Your task to perform on an android device: Open calendar and show me the first week of next month Image 0: 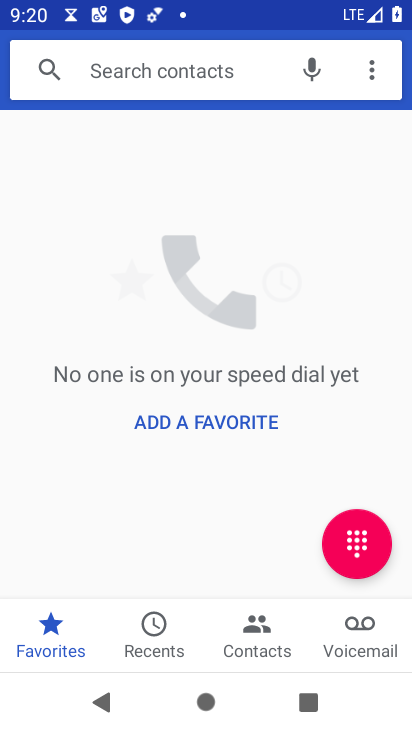
Step 0: press home button
Your task to perform on an android device: Open calendar and show me the first week of next month Image 1: 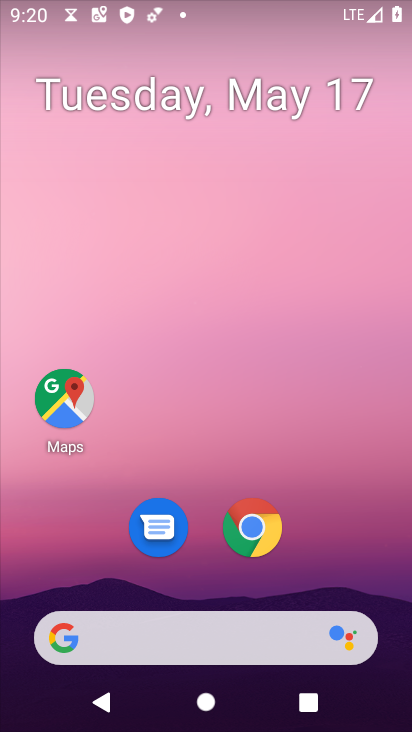
Step 1: drag from (205, 492) to (308, 90)
Your task to perform on an android device: Open calendar and show me the first week of next month Image 2: 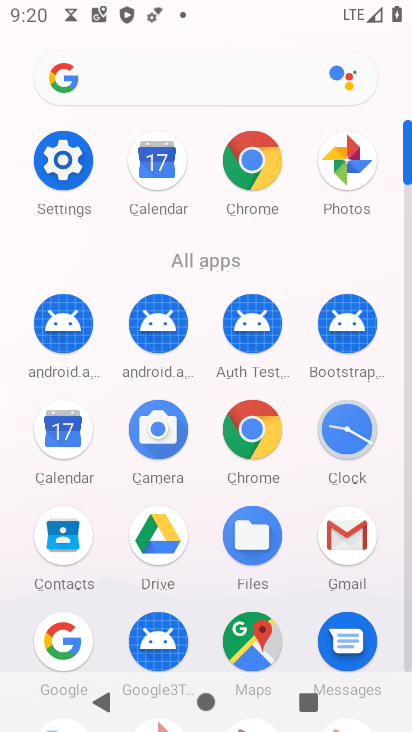
Step 2: click (163, 172)
Your task to perform on an android device: Open calendar and show me the first week of next month Image 3: 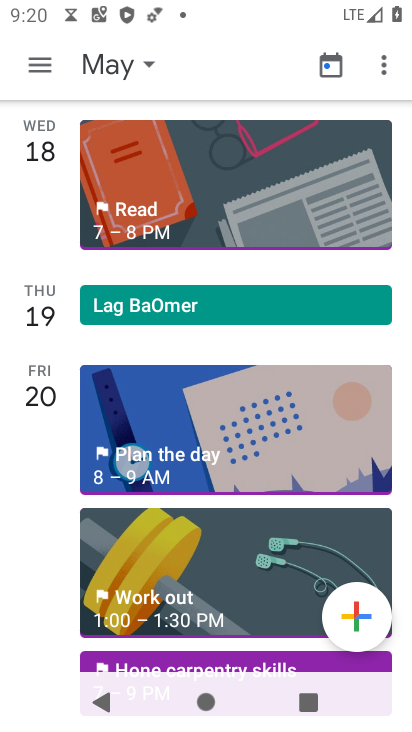
Step 3: click (106, 71)
Your task to perform on an android device: Open calendar and show me the first week of next month Image 4: 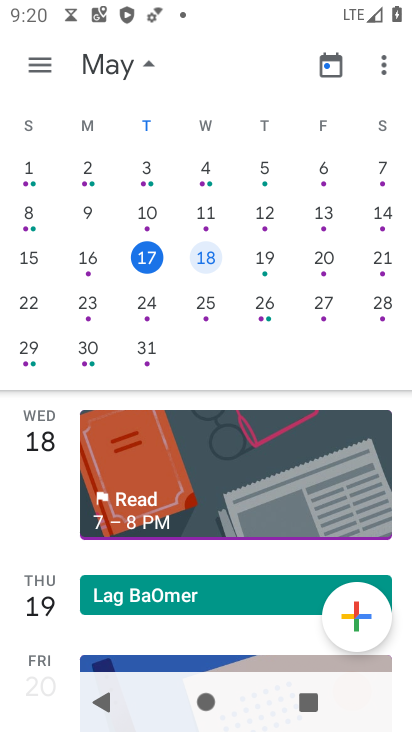
Step 4: drag from (372, 218) to (2, 347)
Your task to perform on an android device: Open calendar and show me the first week of next month Image 5: 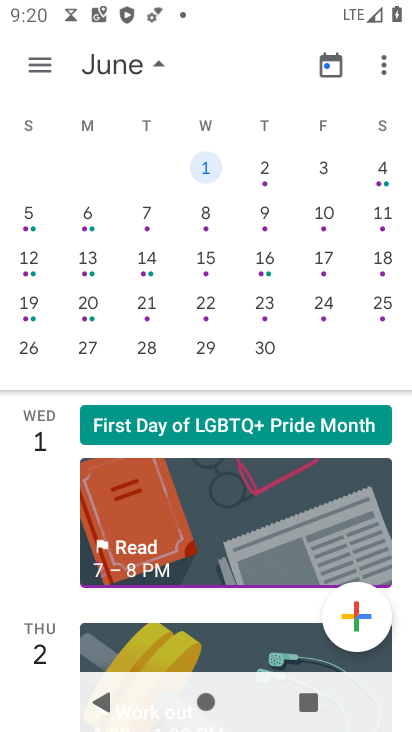
Step 5: click (203, 169)
Your task to perform on an android device: Open calendar and show me the first week of next month Image 6: 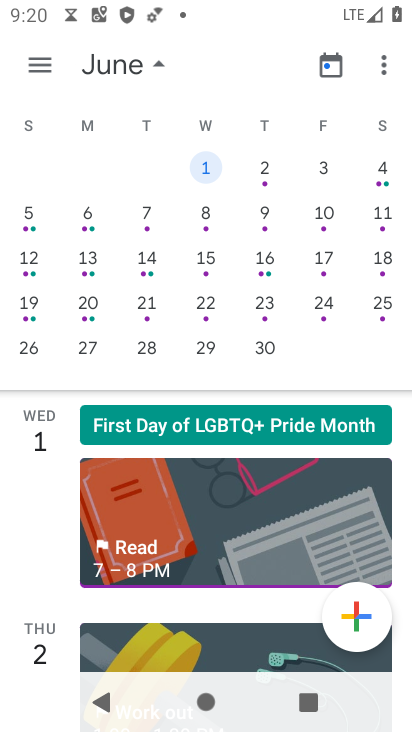
Step 6: click (42, 67)
Your task to perform on an android device: Open calendar and show me the first week of next month Image 7: 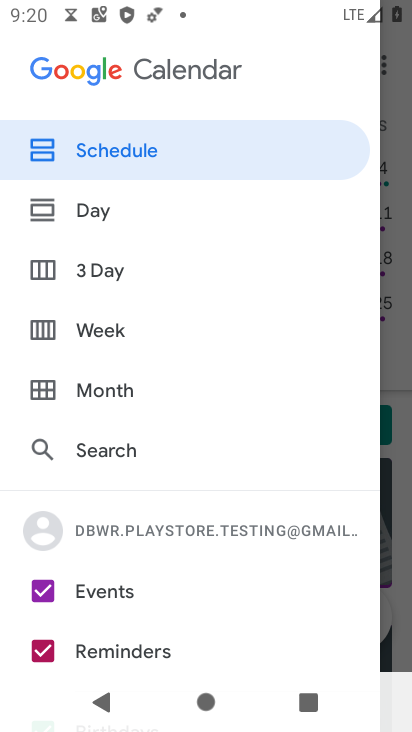
Step 7: click (104, 329)
Your task to perform on an android device: Open calendar and show me the first week of next month Image 8: 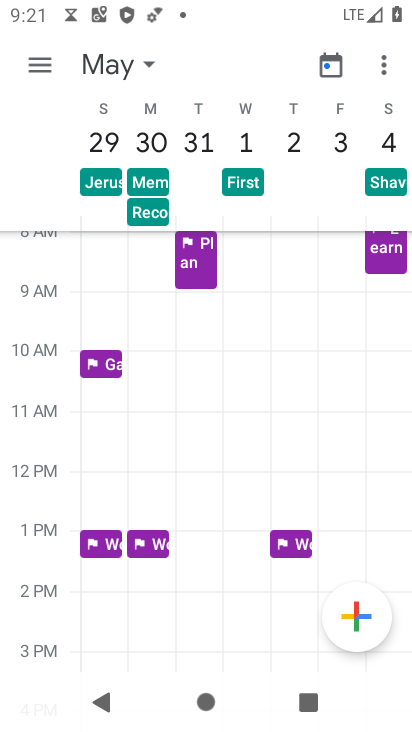
Step 8: task complete